Your task to perform on an android device: open app "Flipkart Online Shopping App" (install if not already installed) Image 0: 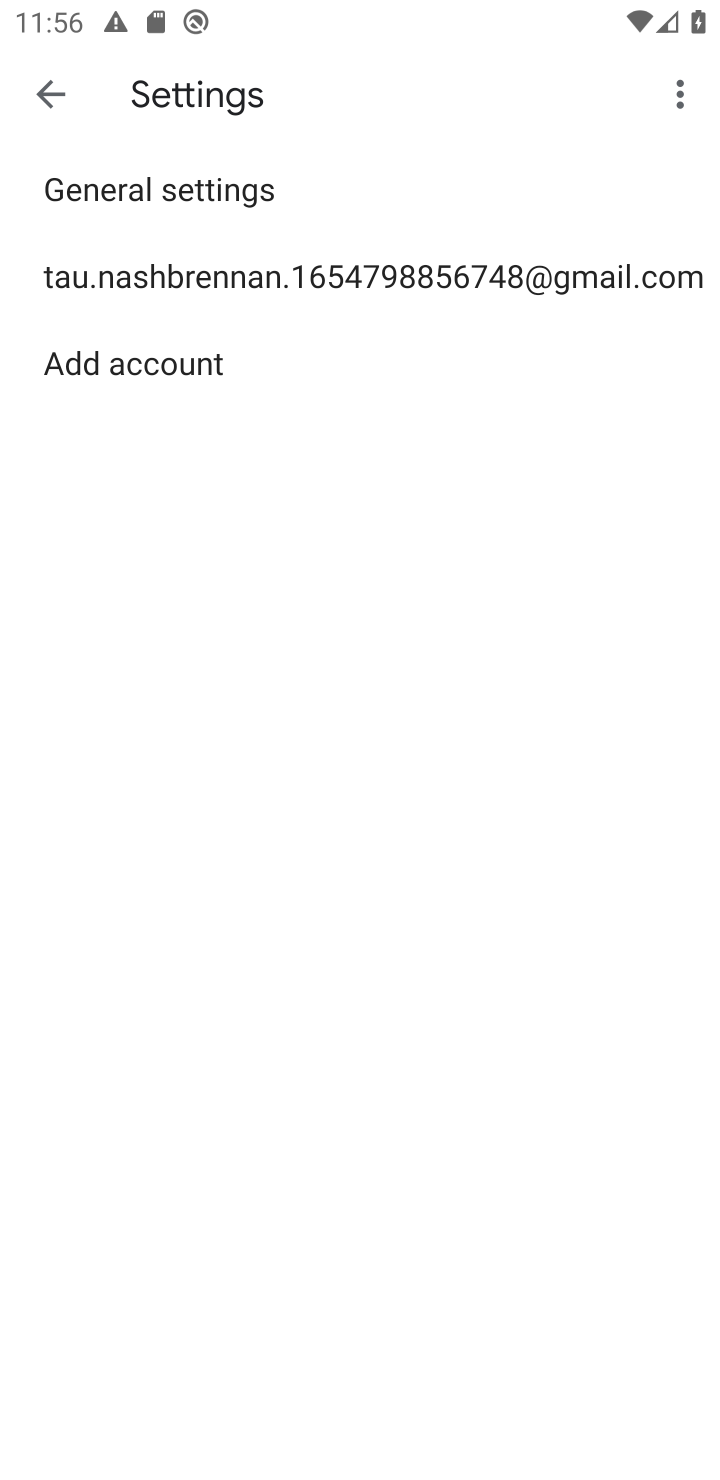
Step 0: press home button
Your task to perform on an android device: open app "Flipkart Online Shopping App" (install if not already installed) Image 1: 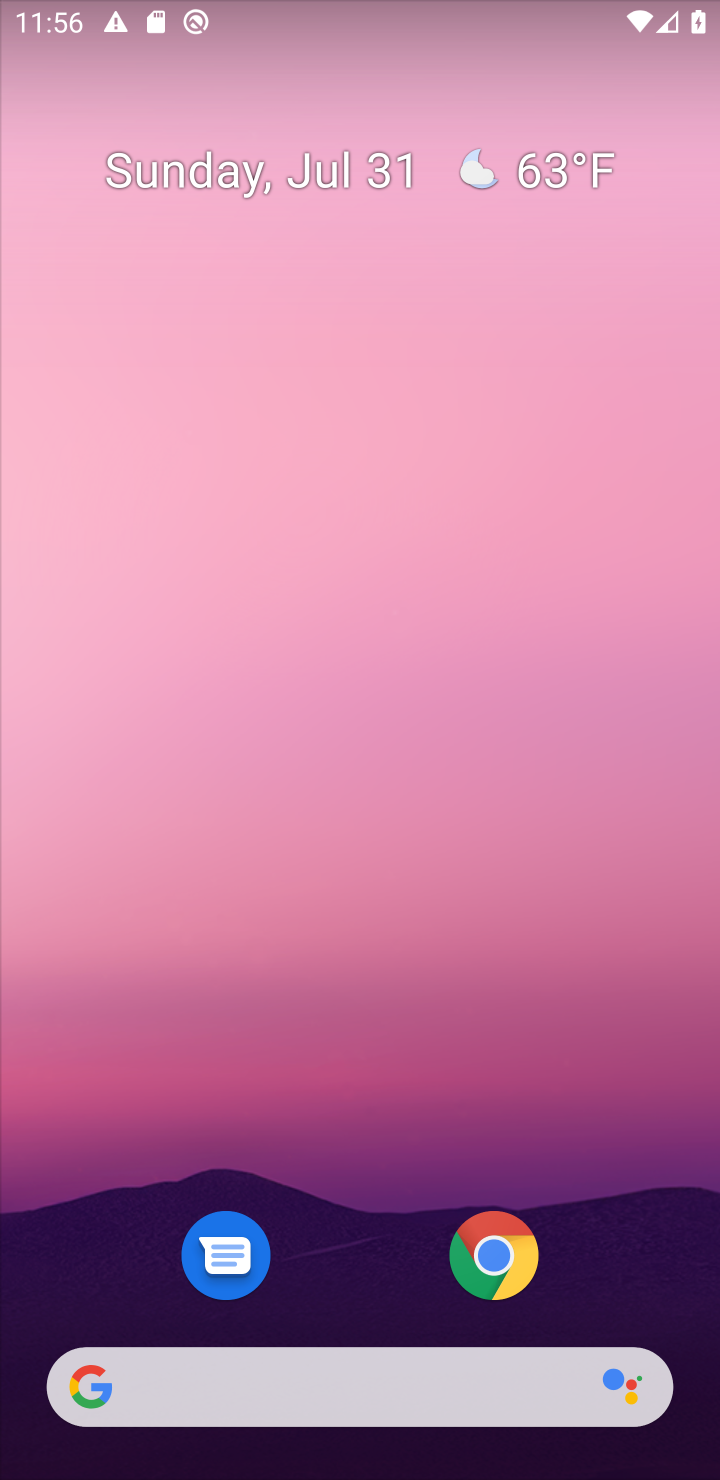
Step 1: drag from (405, 1129) to (351, 219)
Your task to perform on an android device: open app "Flipkart Online Shopping App" (install if not already installed) Image 2: 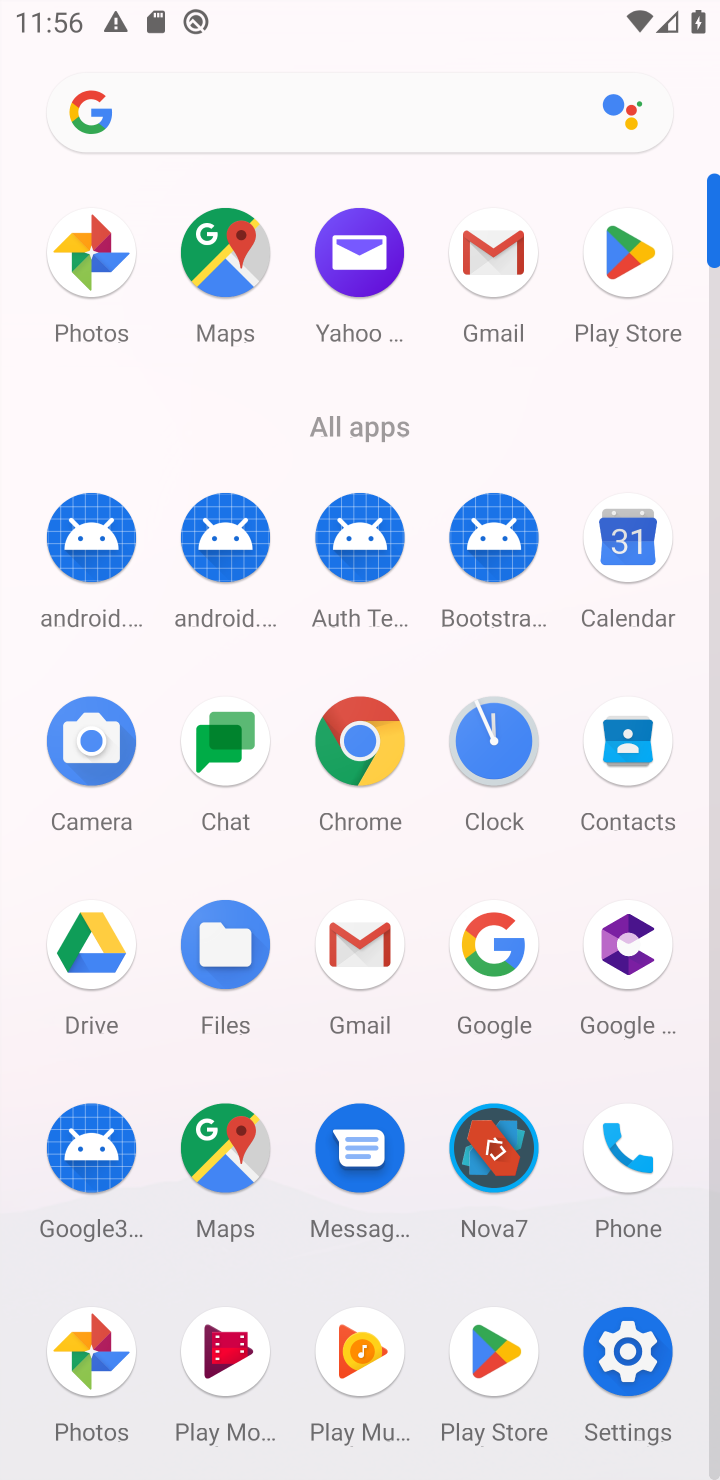
Step 2: drag from (431, 1064) to (393, 740)
Your task to perform on an android device: open app "Flipkart Online Shopping App" (install if not already installed) Image 3: 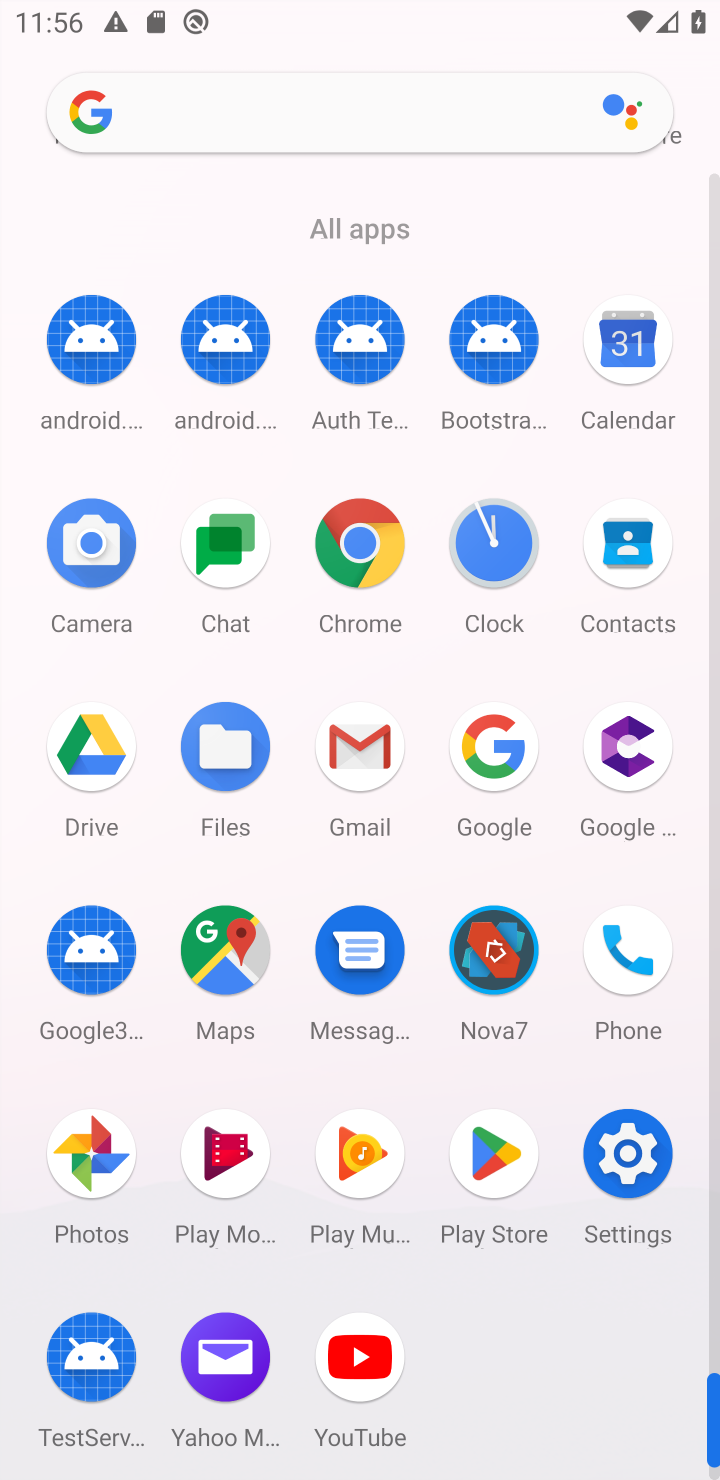
Step 3: click (477, 1176)
Your task to perform on an android device: open app "Flipkart Online Shopping App" (install if not already installed) Image 4: 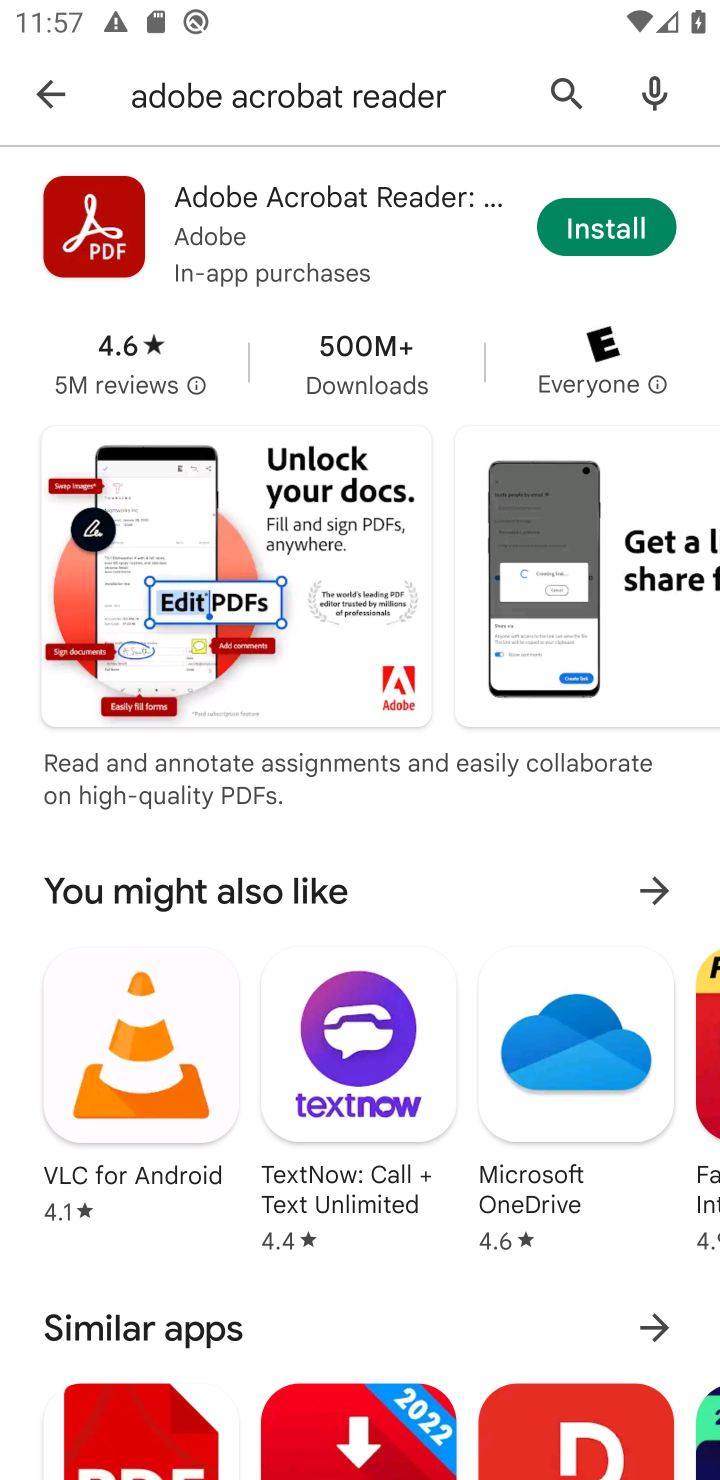
Step 4: click (536, 65)
Your task to perform on an android device: open app "Flipkart Online Shopping App" (install if not already installed) Image 5: 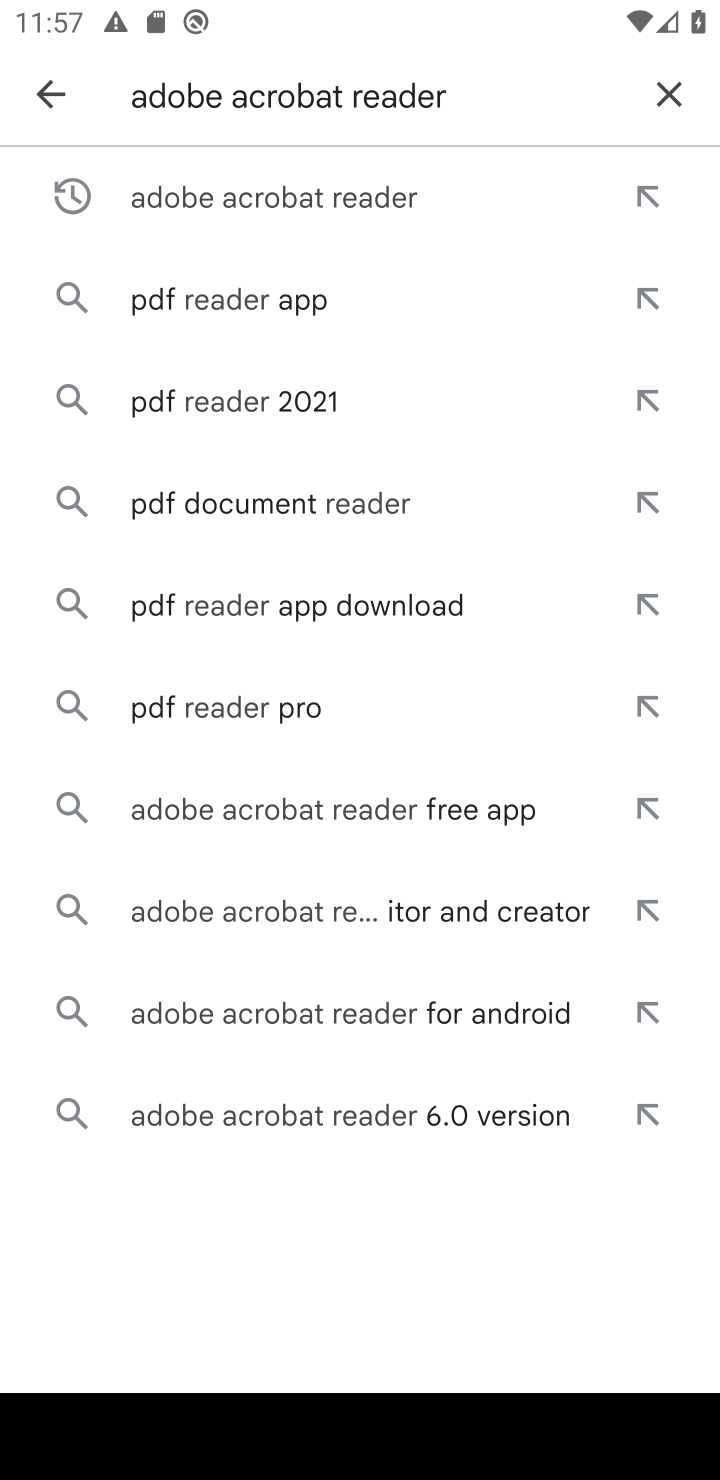
Step 5: click (678, 95)
Your task to perform on an android device: open app "Flipkart Online Shopping App" (install if not already installed) Image 6: 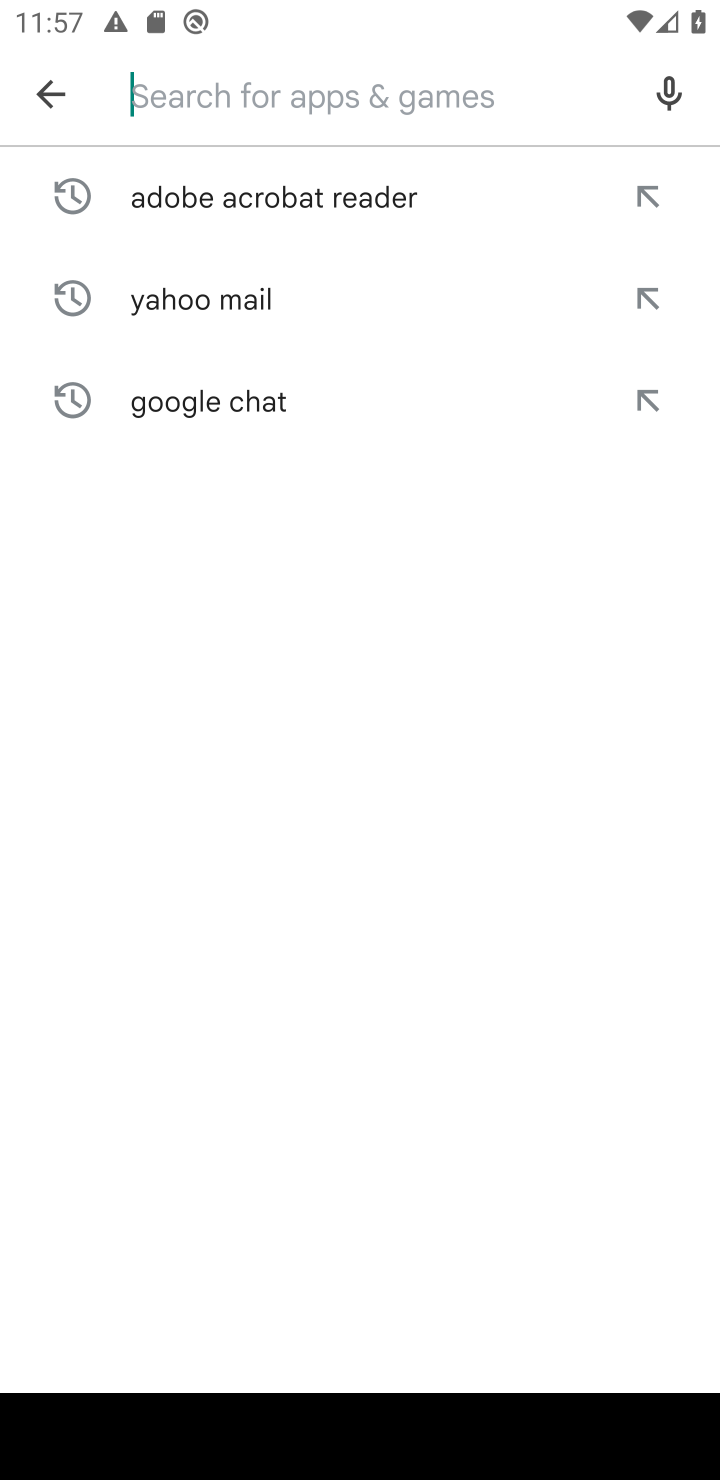
Step 6: type "flipkart"
Your task to perform on an android device: open app "Flipkart Online Shopping App" (install if not already installed) Image 7: 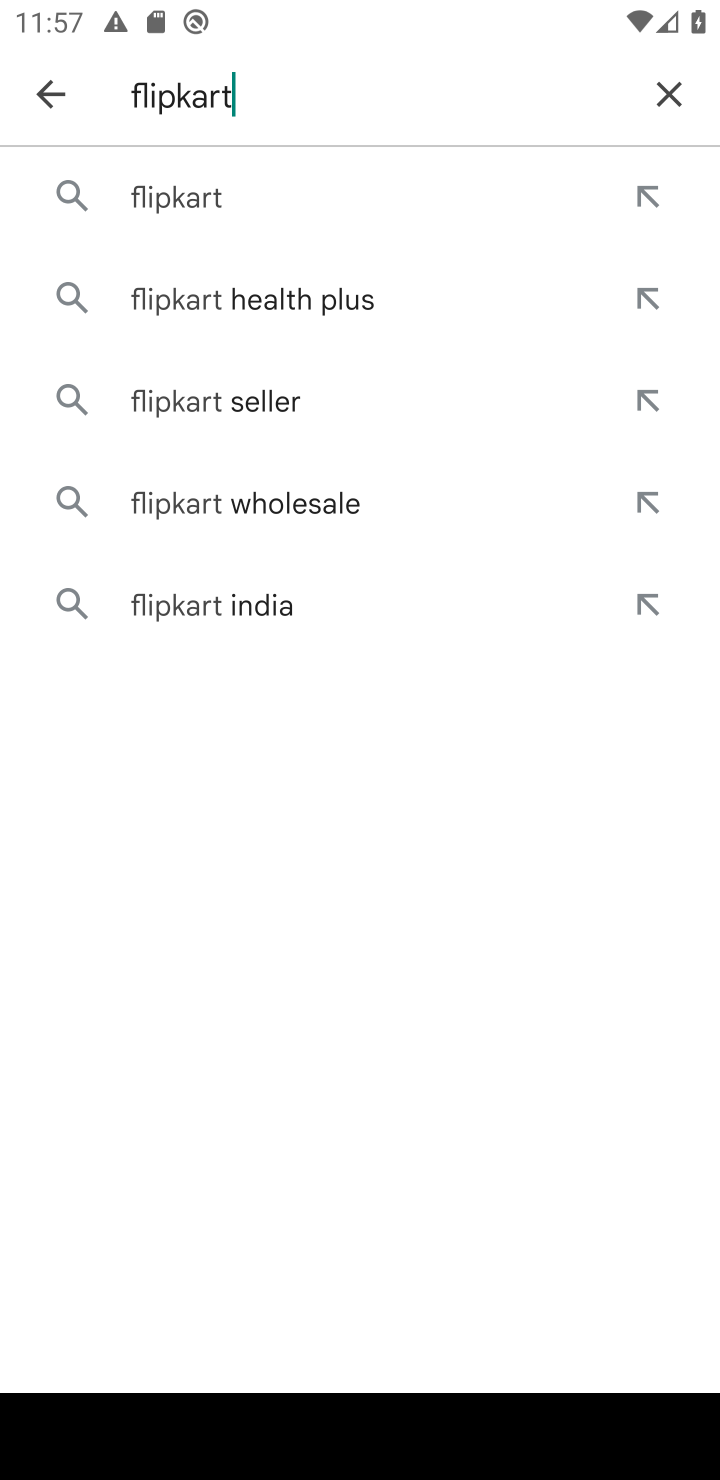
Step 7: click (219, 178)
Your task to perform on an android device: open app "Flipkart Online Shopping App" (install if not already installed) Image 8: 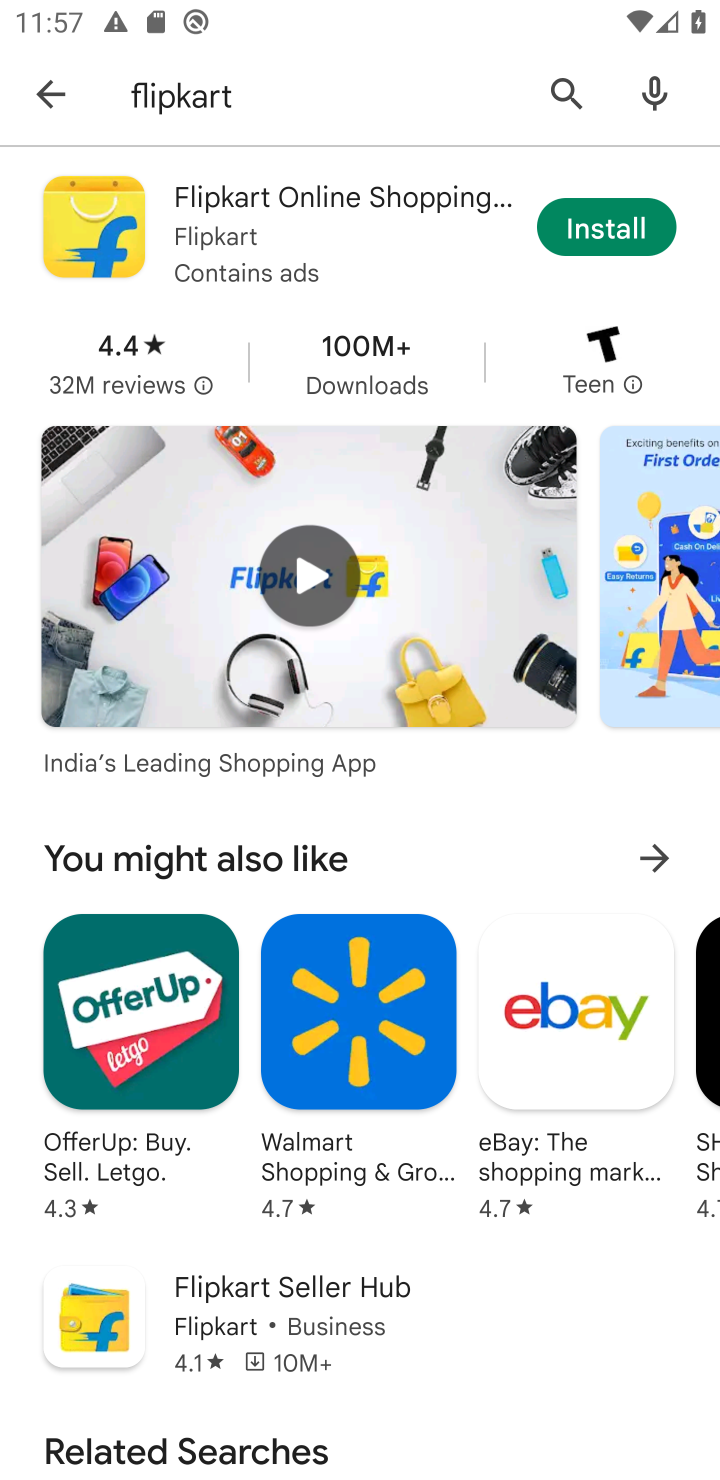
Step 8: click (562, 234)
Your task to perform on an android device: open app "Flipkart Online Shopping App" (install if not already installed) Image 9: 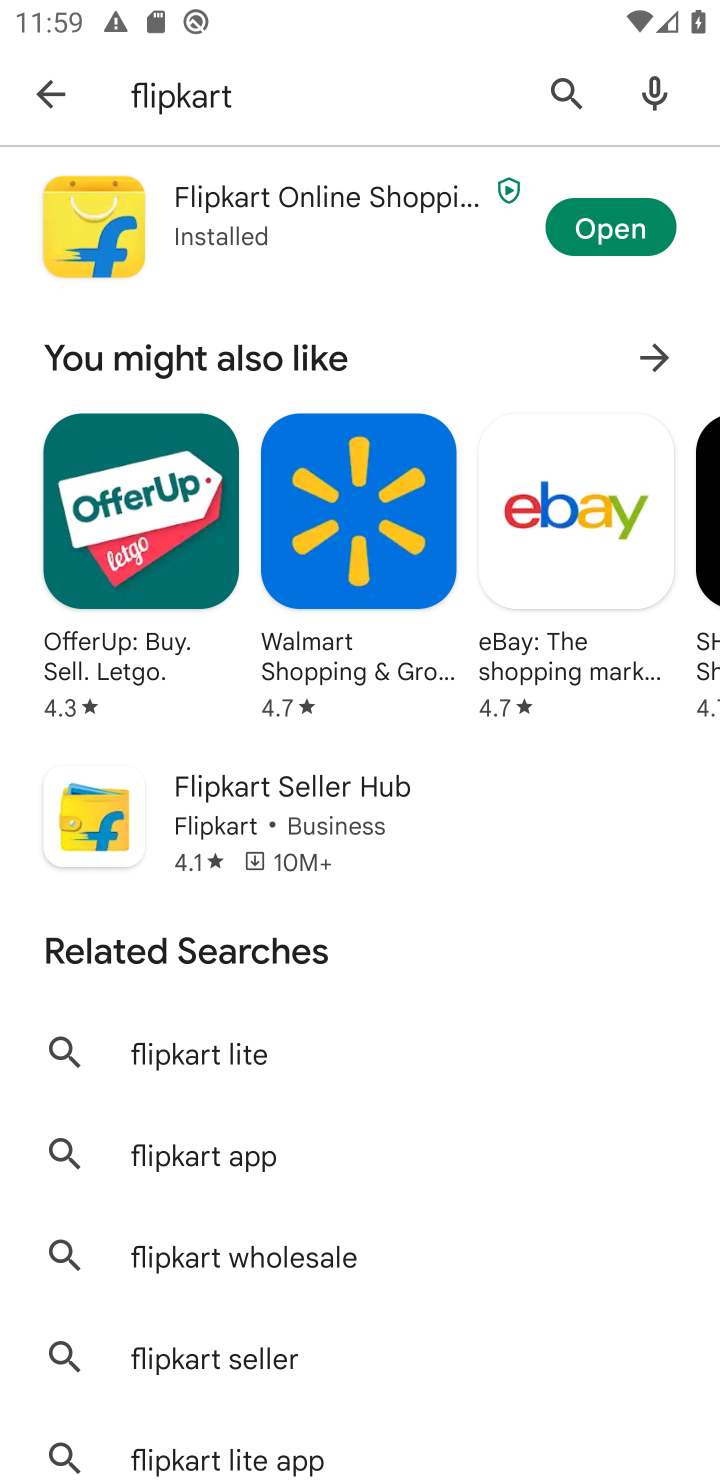
Step 9: click (602, 225)
Your task to perform on an android device: open app "Flipkart Online Shopping App" (install if not already installed) Image 10: 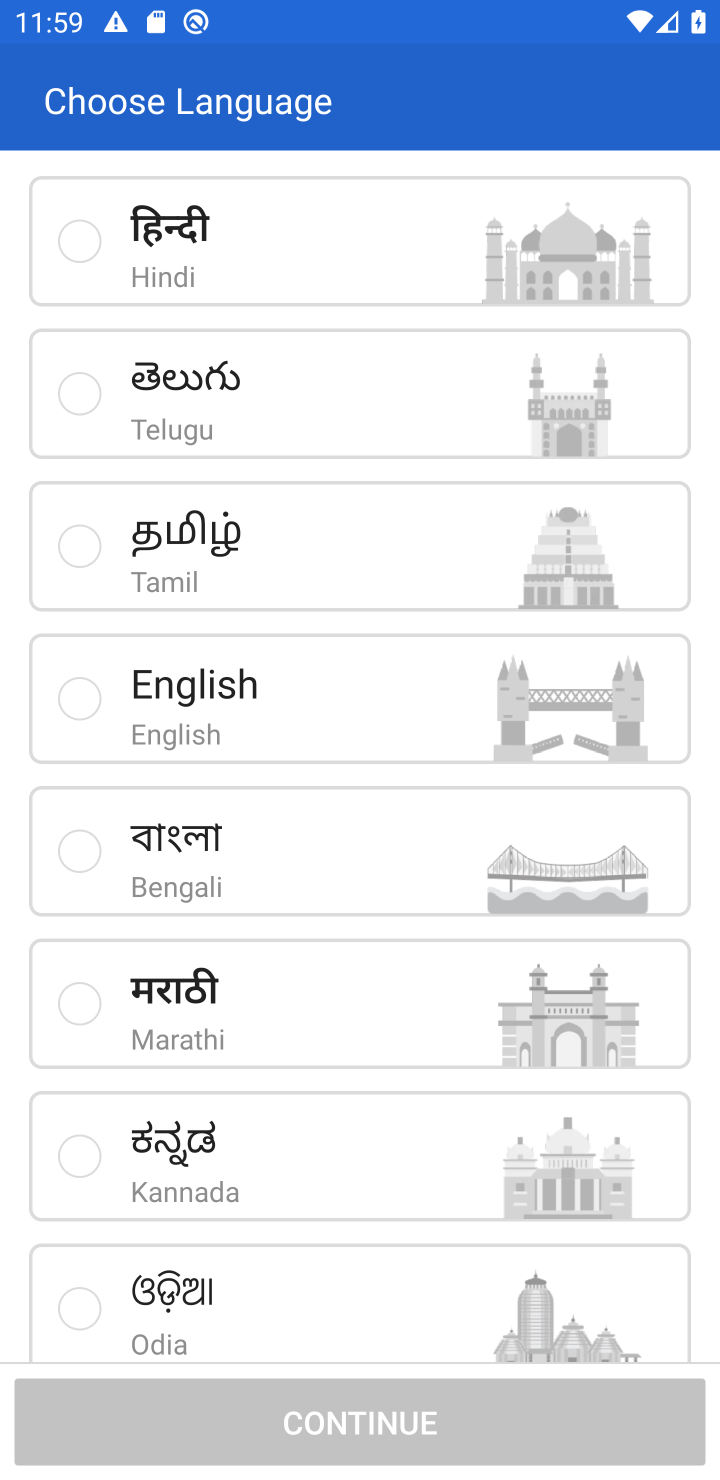
Step 10: task complete